Your task to perform on an android device: toggle improve location accuracy Image 0: 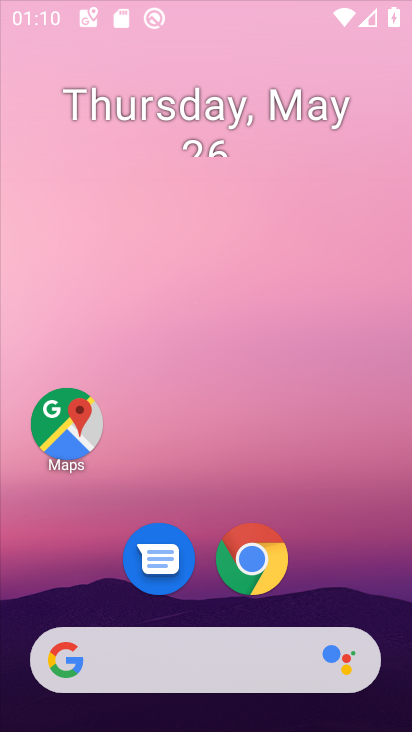
Step 0: press home button
Your task to perform on an android device: toggle improve location accuracy Image 1: 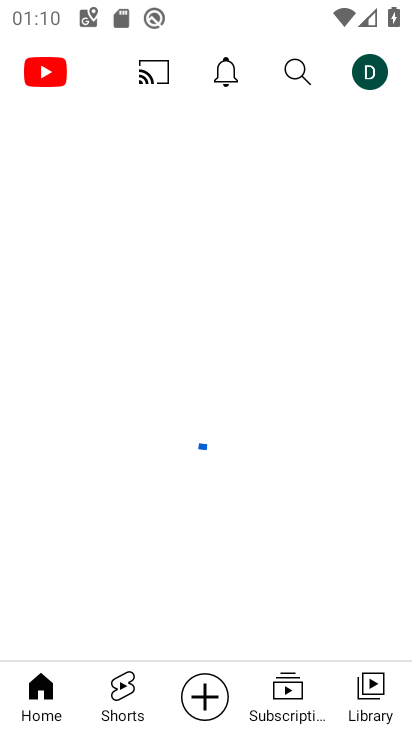
Step 1: drag from (349, 584) to (382, 5)
Your task to perform on an android device: toggle improve location accuracy Image 2: 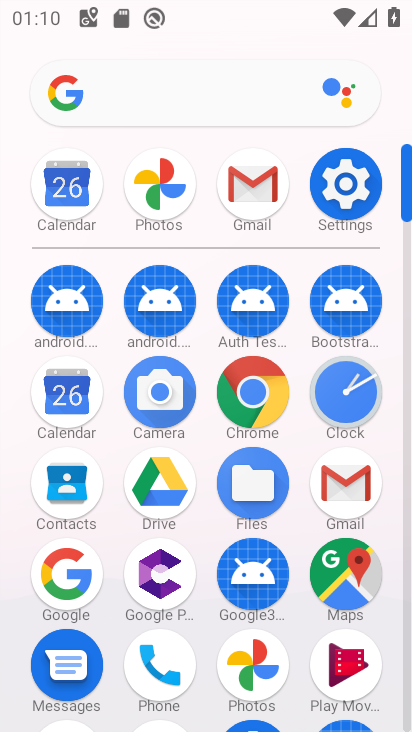
Step 2: click (357, 181)
Your task to perform on an android device: toggle improve location accuracy Image 3: 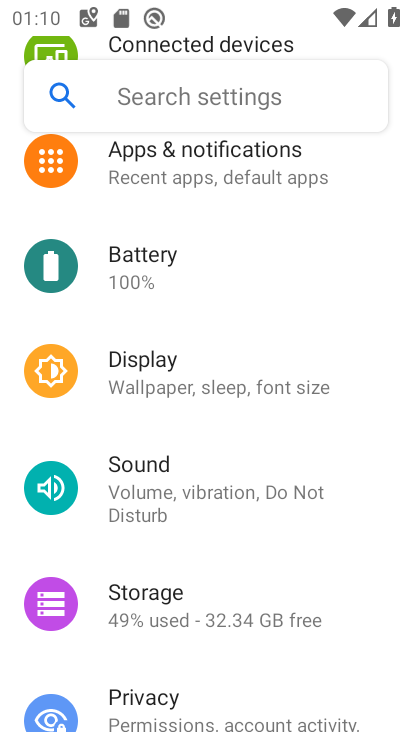
Step 3: drag from (325, 652) to (251, 270)
Your task to perform on an android device: toggle improve location accuracy Image 4: 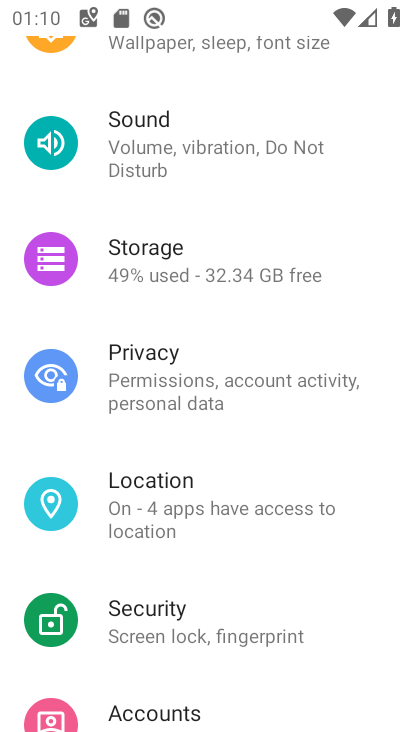
Step 4: click (223, 499)
Your task to perform on an android device: toggle improve location accuracy Image 5: 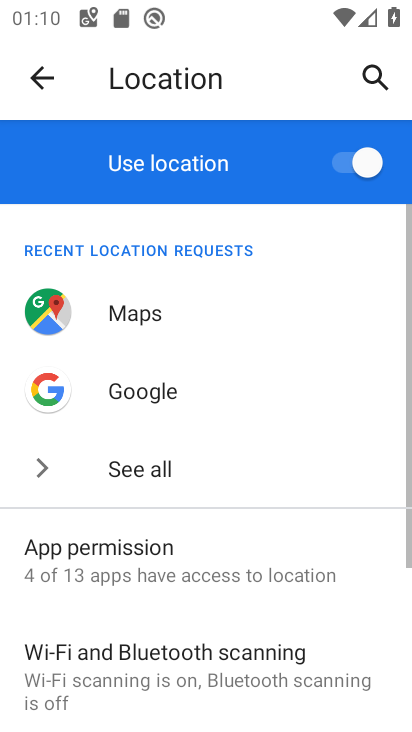
Step 5: drag from (332, 613) to (301, 237)
Your task to perform on an android device: toggle improve location accuracy Image 6: 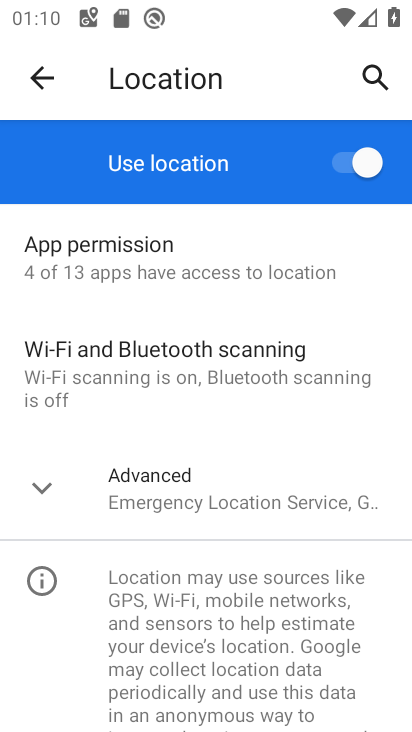
Step 6: click (47, 488)
Your task to perform on an android device: toggle improve location accuracy Image 7: 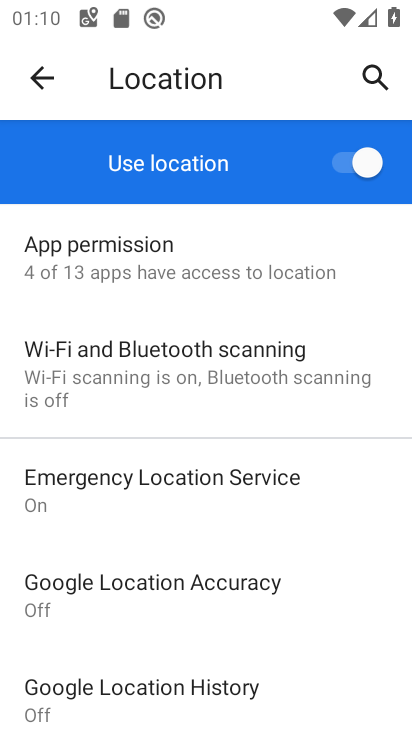
Step 7: click (229, 602)
Your task to perform on an android device: toggle improve location accuracy Image 8: 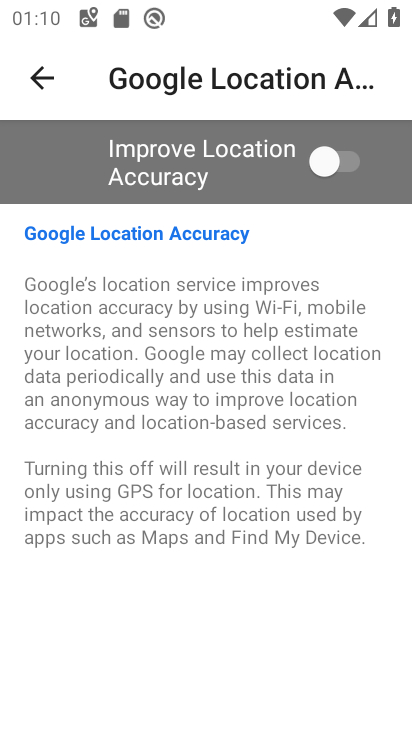
Step 8: click (339, 157)
Your task to perform on an android device: toggle improve location accuracy Image 9: 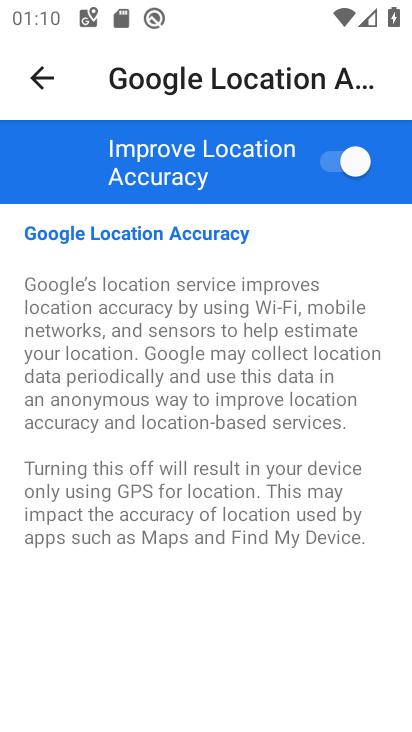
Step 9: task complete